Your task to perform on an android device: What's on my calendar tomorrow? Image 0: 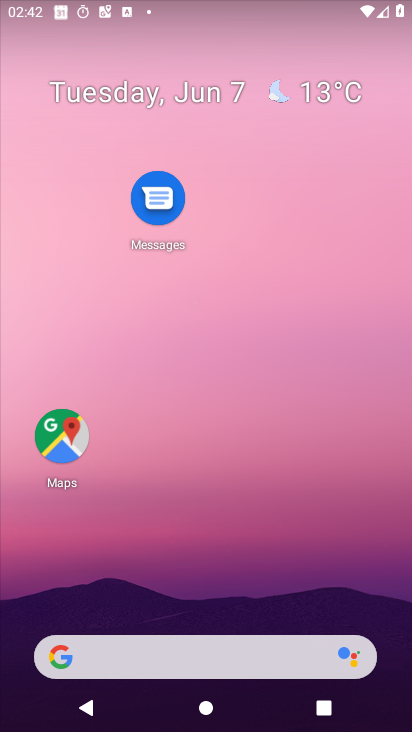
Step 0: drag from (189, 613) to (57, 1)
Your task to perform on an android device: What's on my calendar tomorrow? Image 1: 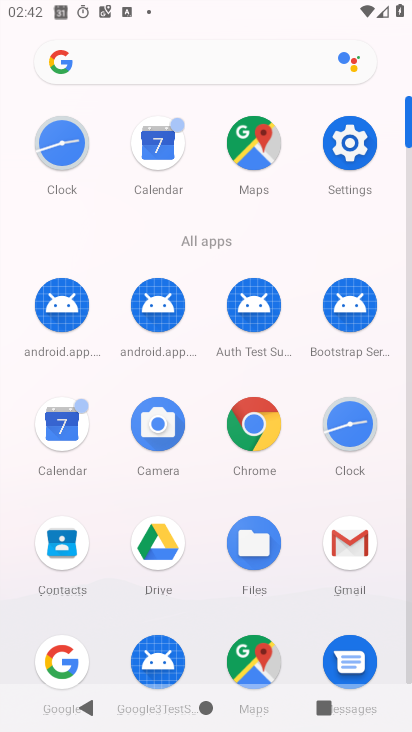
Step 1: drag from (227, 629) to (245, 141)
Your task to perform on an android device: What's on my calendar tomorrow? Image 2: 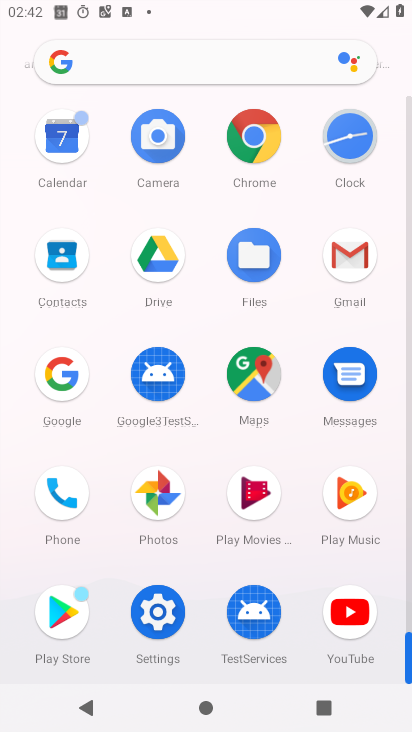
Step 2: click (70, 183)
Your task to perform on an android device: What's on my calendar tomorrow? Image 3: 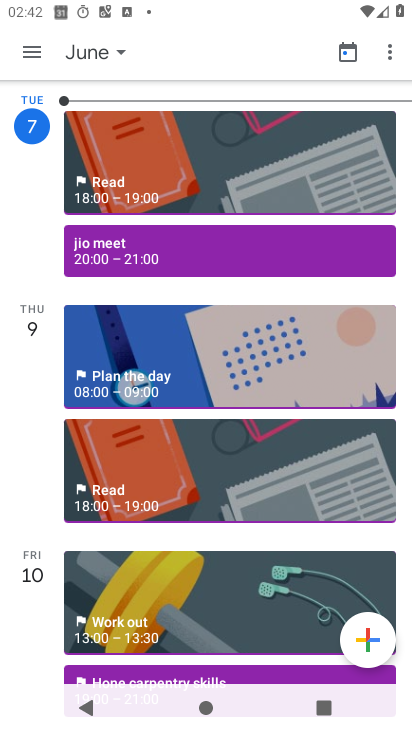
Step 3: task complete